Your task to perform on an android device: set the stopwatch Image 0: 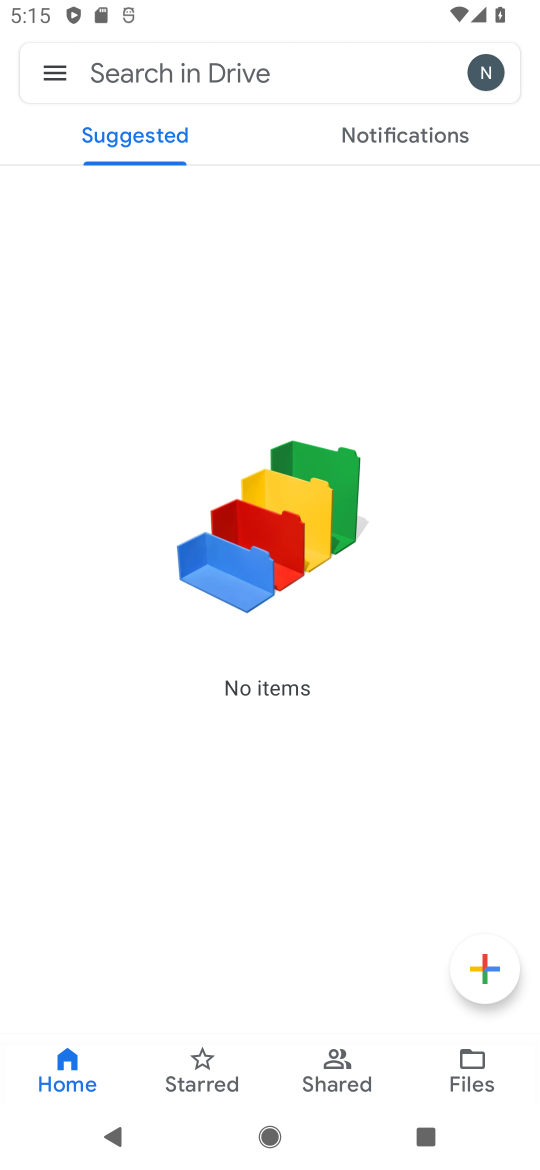
Step 0: press home button
Your task to perform on an android device: set the stopwatch Image 1: 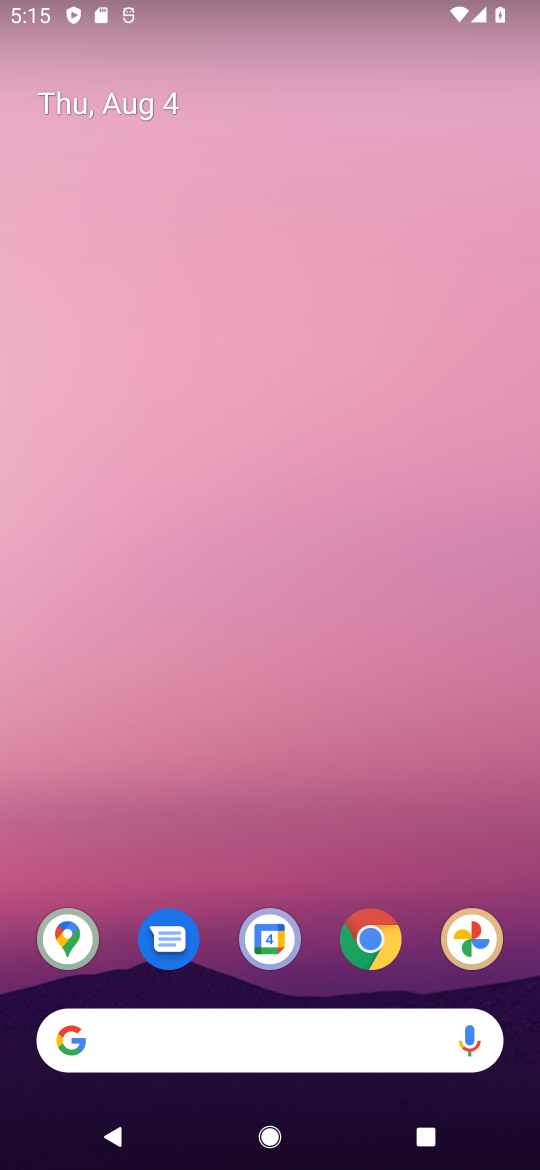
Step 1: drag from (272, 1030) to (312, 497)
Your task to perform on an android device: set the stopwatch Image 2: 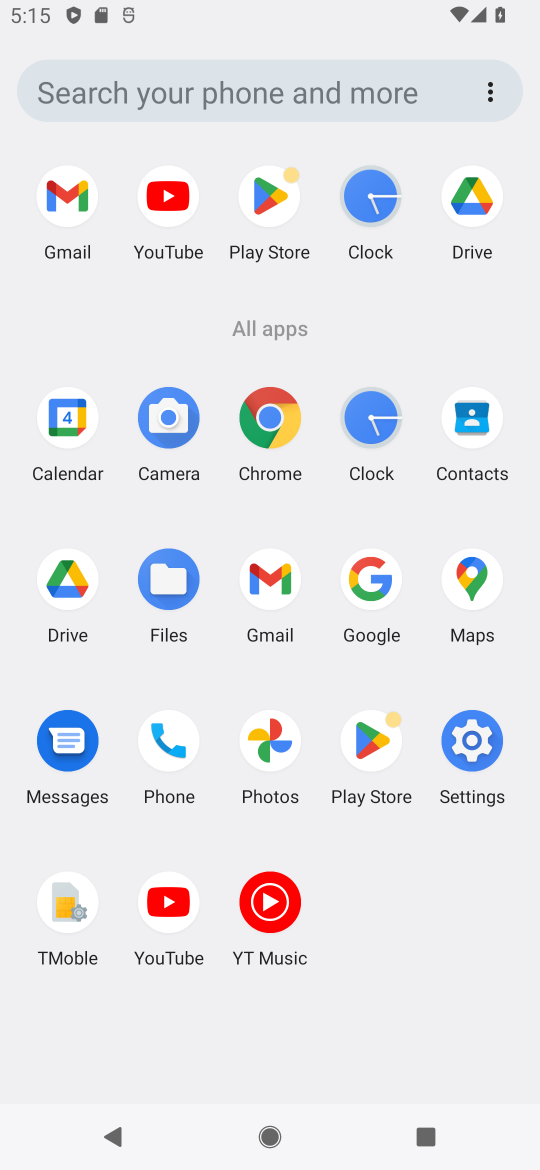
Step 2: click (374, 412)
Your task to perform on an android device: set the stopwatch Image 3: 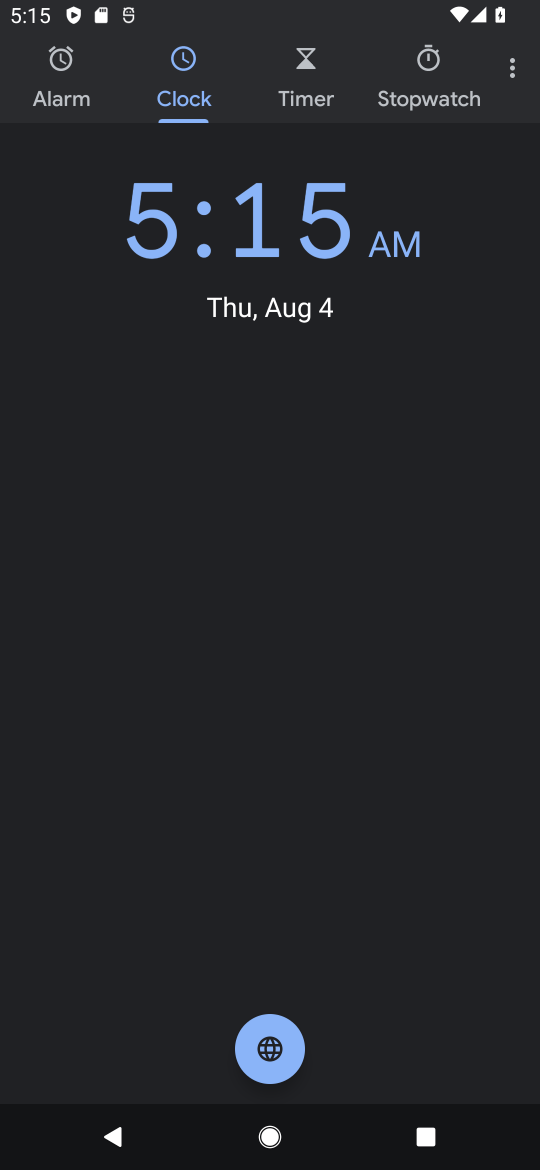
Step 3: click (432, 92)
Your task to perform on an android device: set the stopwatch Image 4: 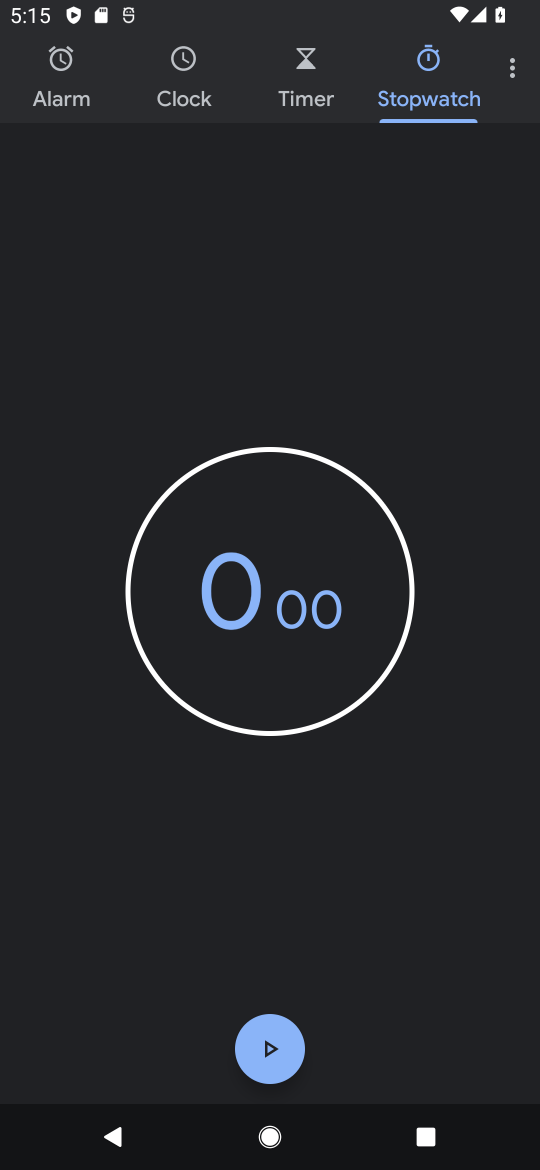
Step 4: task complete